Your task to perform on an android device: Go to wifi settings Image 0: 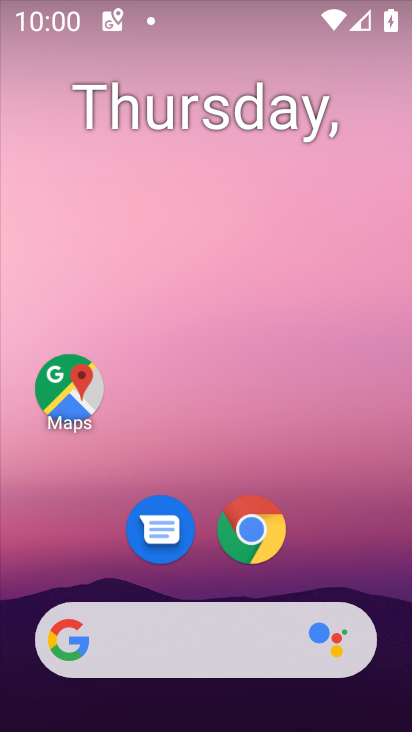
Step 0: drag from (274, 686) to (257, 19)
Your task to perform on an android device: Go to wifi settings Image 1: 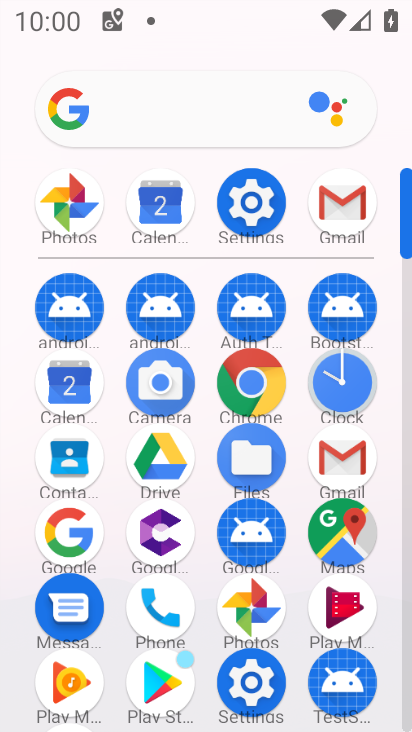
Step 1: click (258, 193)
Your task to perform on an android device: Go to wifi settings Image 2: 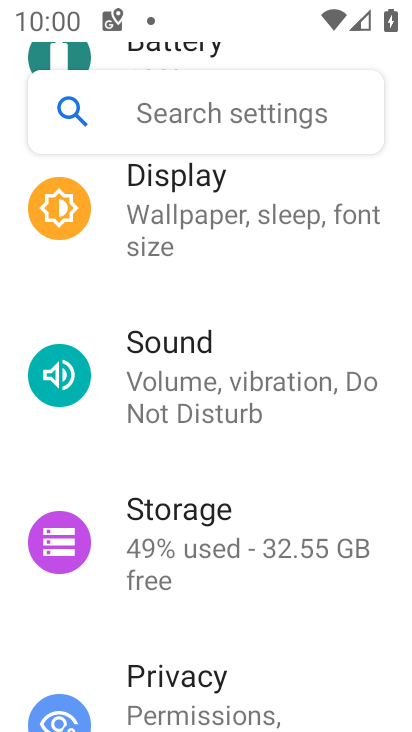
Step 2: drag from (352, 231) to (300, 587)
Your task to perform on an android device: Go to wifi settings Image 3: 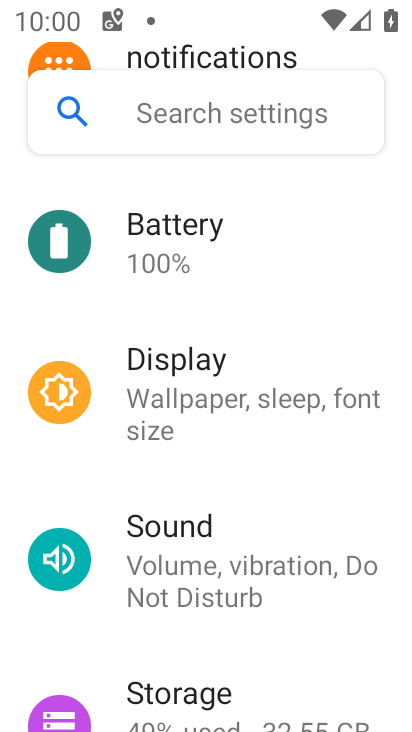
Step 3: drag from (267, 214) to (113, 674)
Your task to perform on an android device: Go to wifi settings Image 4: 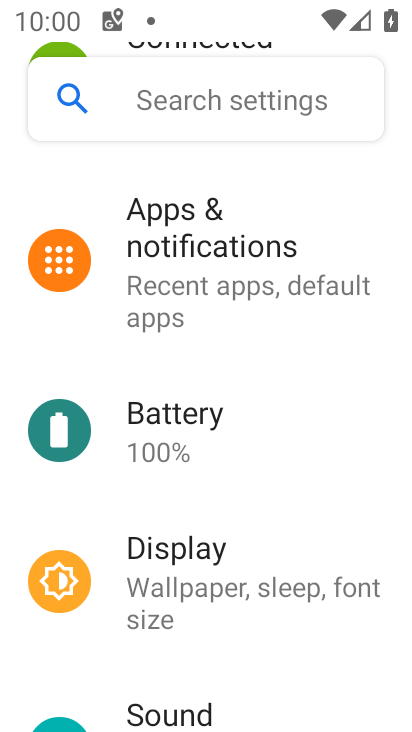
Step 4: drag from (299, 249) to (298, 705)
Your task to perform on an android device: Go to wifi settings Image 5: 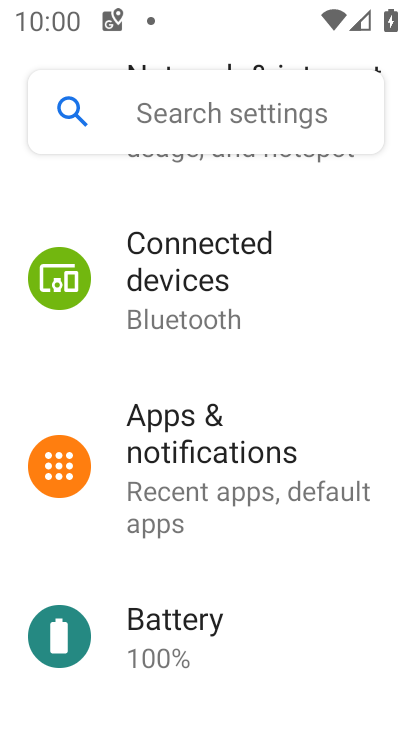
Step 5: drag from (360, 250) to (255, 698)
Your task to perform on an android device: Go to wifi settings Image 6: 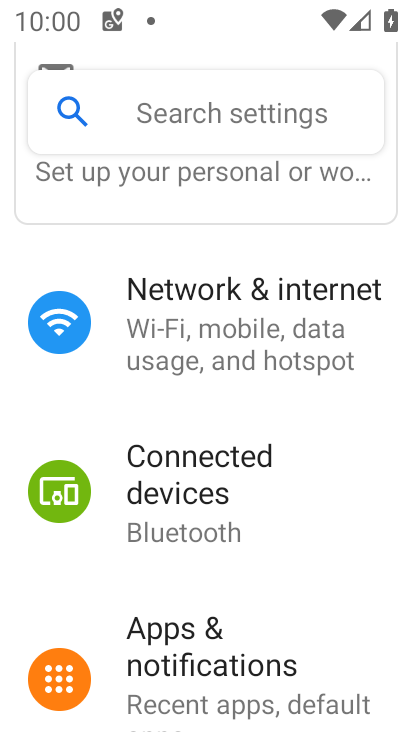
Step 6: drag from (293, 265) to (223, 691)
Your task to perform on an android device: Go to wifi settings Image 7: 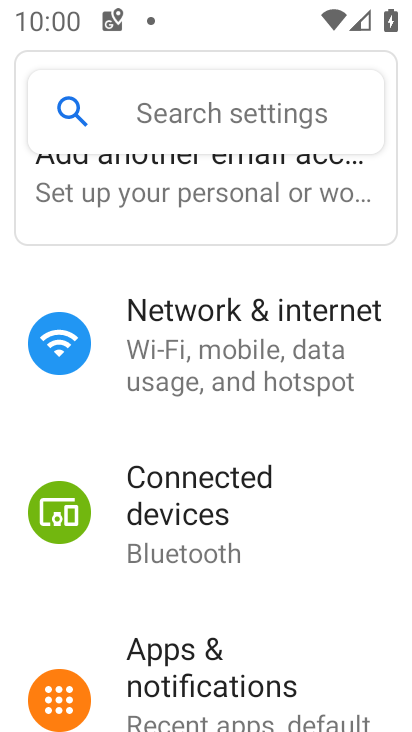
Step 7: click (276, 369)
Your task to perform on an android device: Go to wifi settings Image 8: 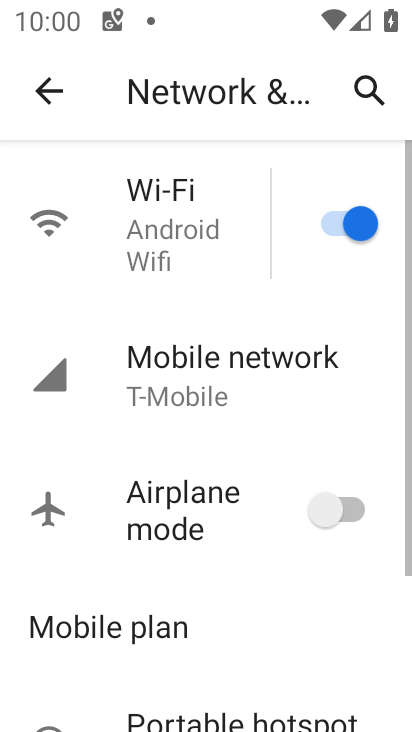
Step 8: click (182, 221)
Your task to perform on an android device: Go to wifi settings Image 9: 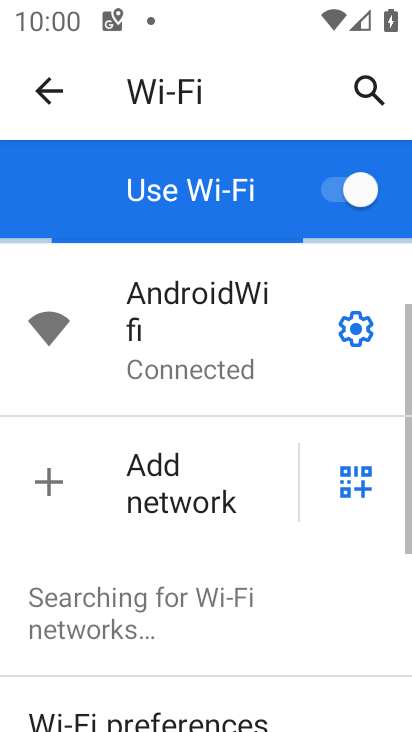
Step 9: click (359, 321)
Your task to perform on an android device: Go to wifi settings Image 10: 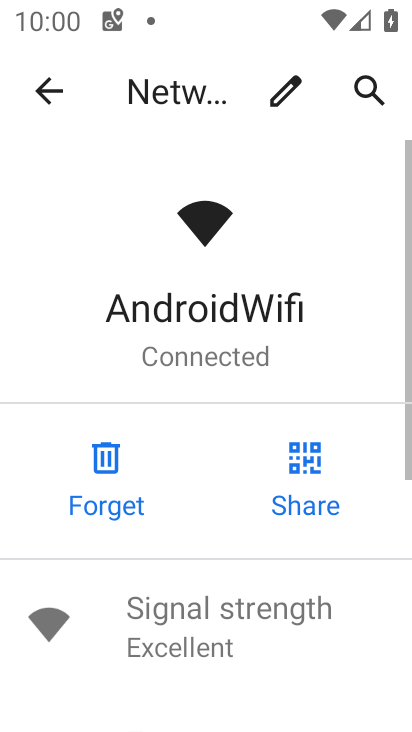
Step 10: task complete